Your task to perform on an android device: Search for hotels in Denver Image 0: 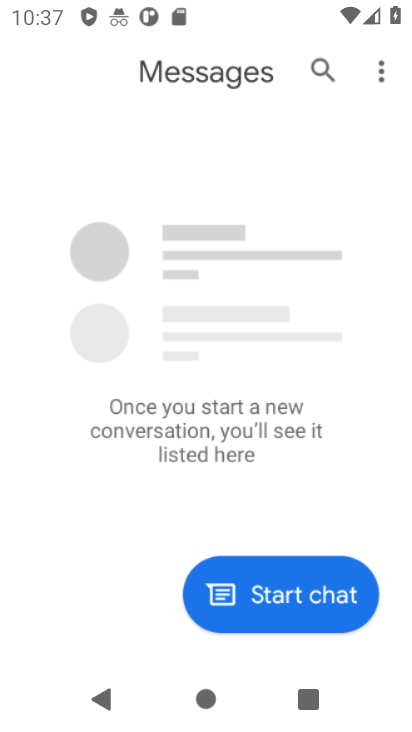
Step 0: drag from (297, 546) to (314, 312)
Your task to perform on an android device: Search for hotels in Denver Image 1: 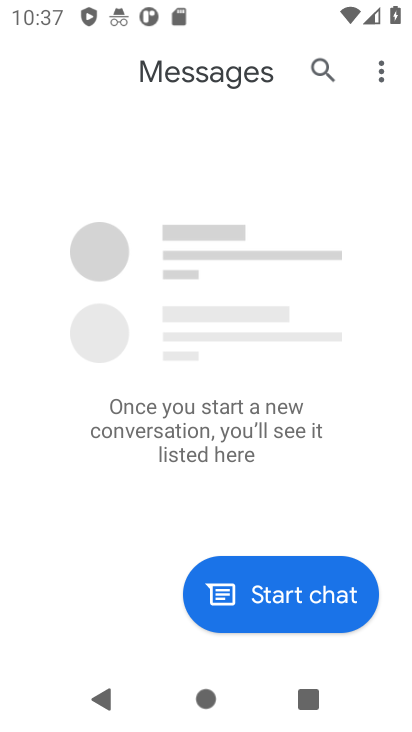
Step 1: press home button
Your task to perform on an android device: Search for hotels in Denver Image 2: 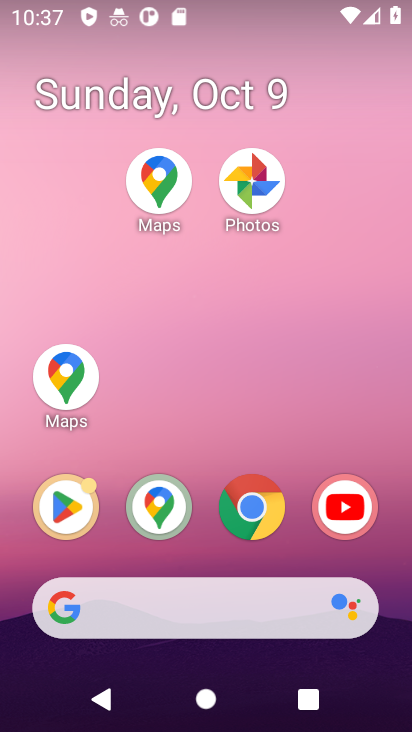
Step 2: drag from (313, 553) to (289, 74)
Your task to perform on an android device: Search for hotels in Denver Image 3: 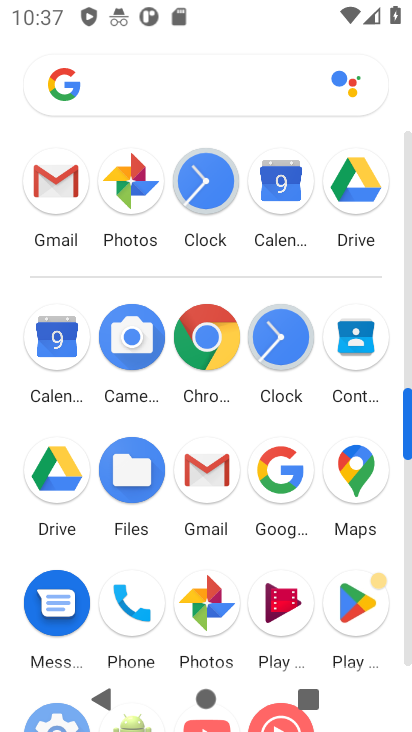
Step 3: click (208, 343)
Your task to perform on an android device: Search for hotels in Denver Image 4: 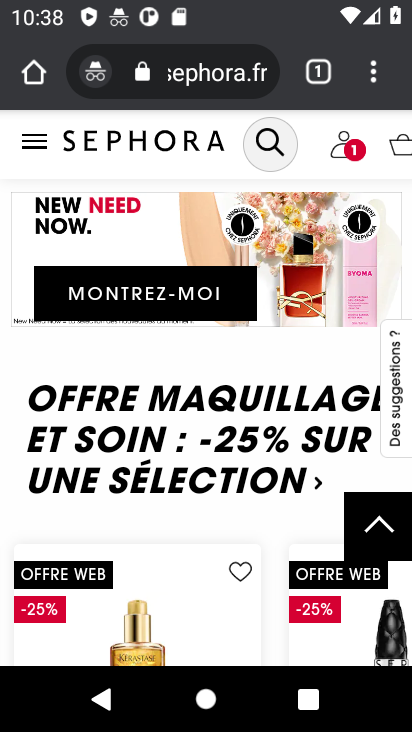
Step 4: click (195, 68)
Your task to perform on an android device: Search for hotels in Denver Image 5: 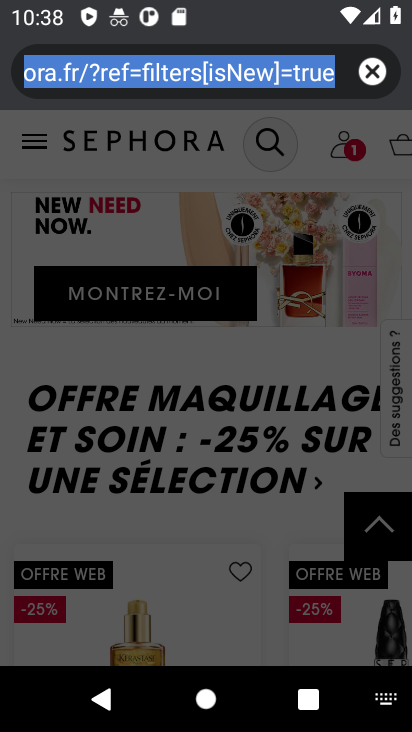
Step 5: type "hotels in Denver"
Your task to perform on an android device: Search for hotels in Denver Image 6: 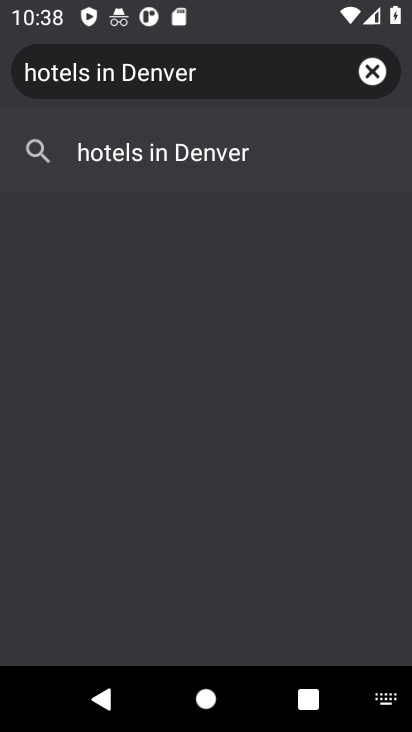
Step 6: press enter
Your task to perform on an android device: Search for hotels in Denver Image 7: 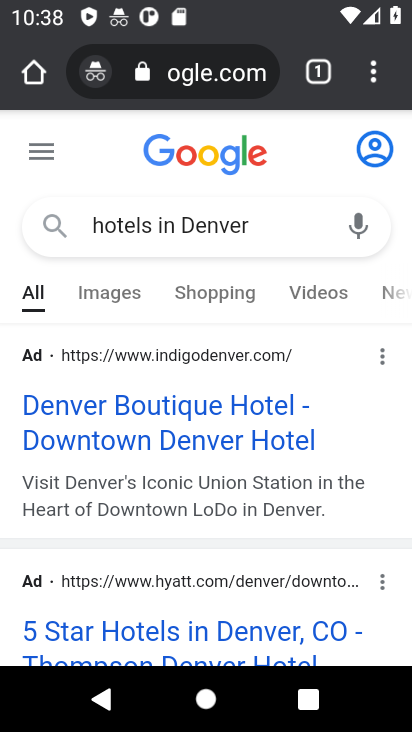
Step 7: task complete